Your task to perform on an android device: Go to Reddit.com Image 0: 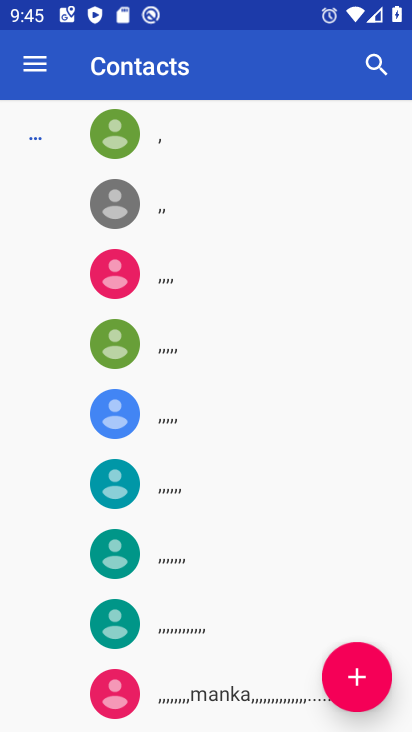
Step 0: drag from (269, 575) to (380, 483)
Your task to perform on an android device: Go to Reddit.com Image 1: 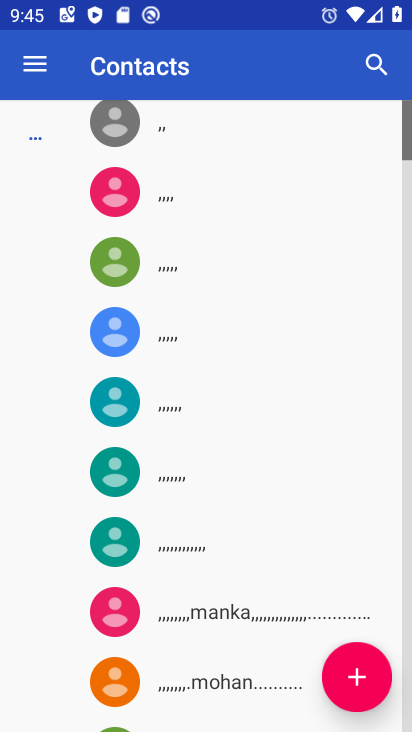
Step 1: press home button
Your task to perform on an android device: Go to Reddit.com Image 2: 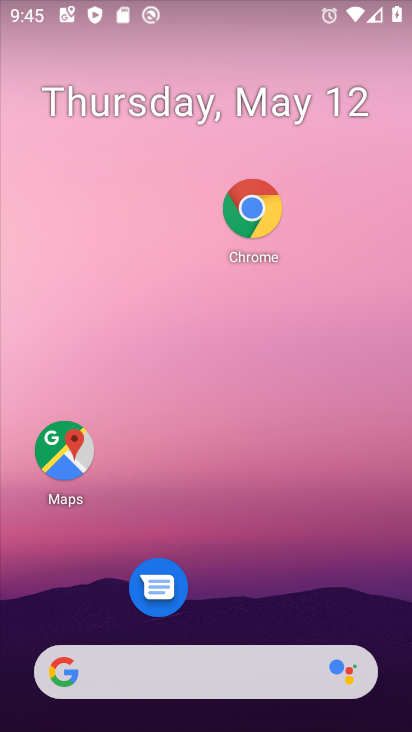
Step 2: drag from (302, 522) to (318, 207)
Your task to perform on an android device: Go to Reddit.com Image 3: 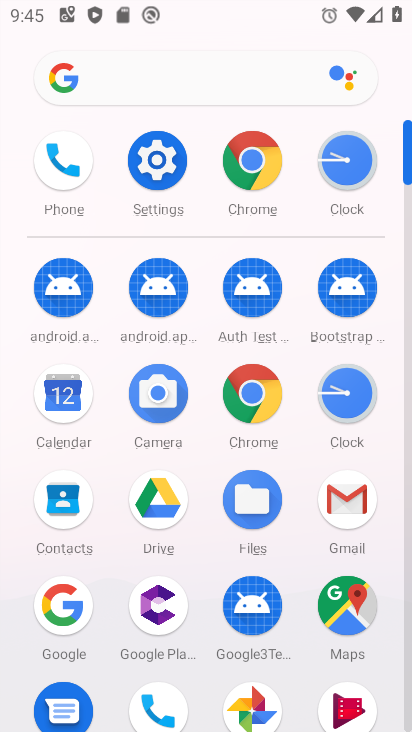
Step 3: click (258, 160)
Your task to perform on an android device: Go to Reddit.com Image 4: 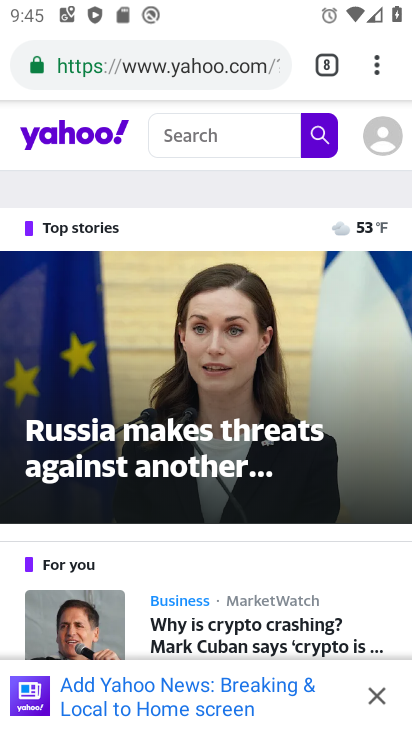
Step 4: click (360, 59)
Your task to perform on an android device: Go to Reddit.com Image 5: 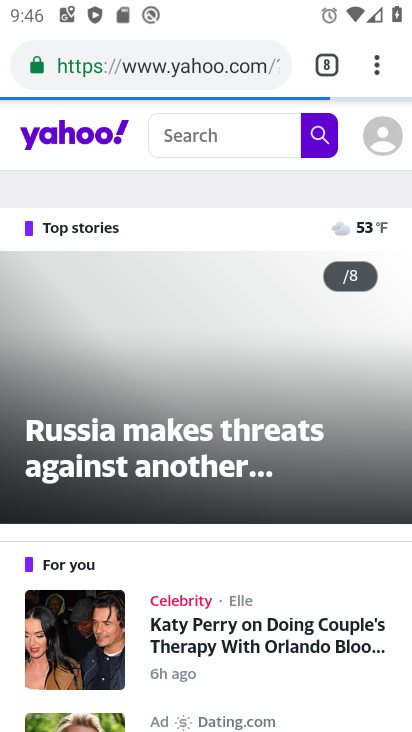
Step 5: click (354, 62)
Your task to perform on an android device: Go to Reddit.com Image 6: 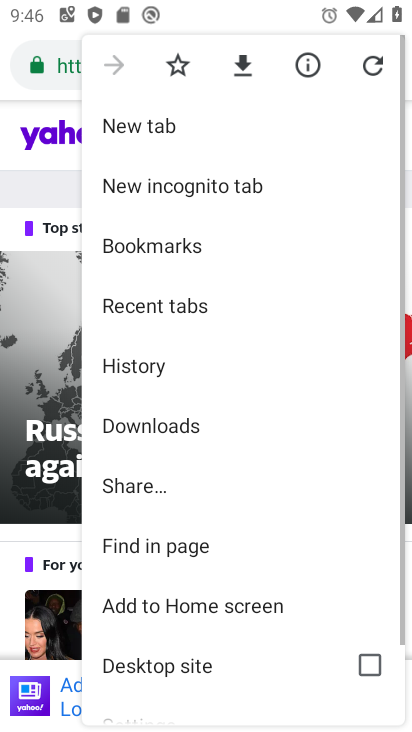
Step 6: click (130, 123)
Your task to perform on an android device: Go to Reddit.com Image 7: 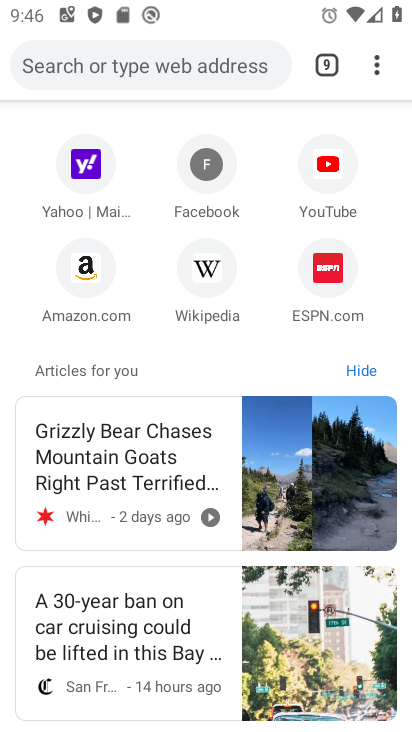
Step 7: click (87, 51)
Your task to perform on an android device: Go to Reddit.com Image 8: 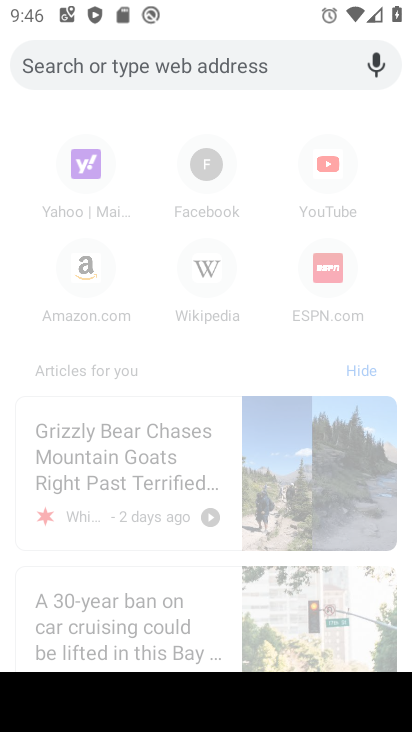
Step 8: type "Reddit.com"
Your task to perform on an android device: Go to Reddit.com Image 9: 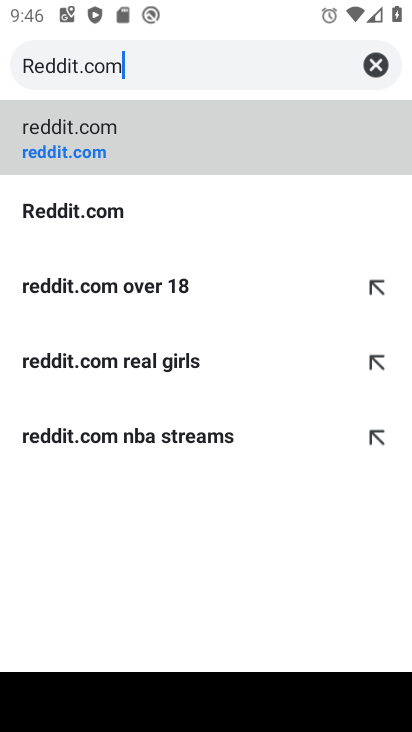
Step 9: click (58, 146)
Your task to perform on an android device: Go to Reddit.com Image 10: 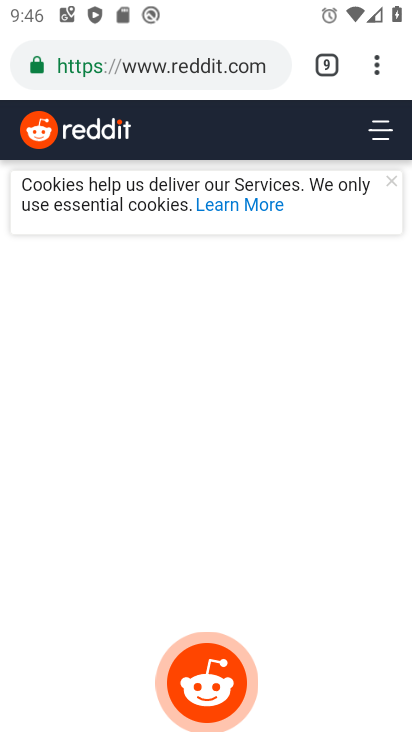
Step 10: task complete